Your task to perform on an android device: Toggle the flashlight Image 0: 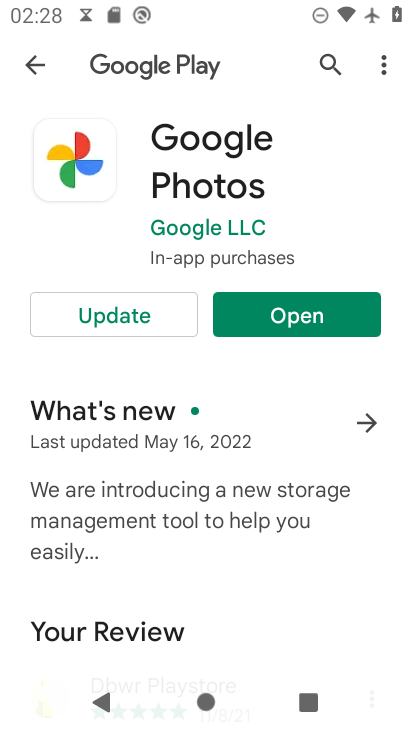
Step 0: press home button
Your task to perform on an android device: Toggle the flashlight Image 1: 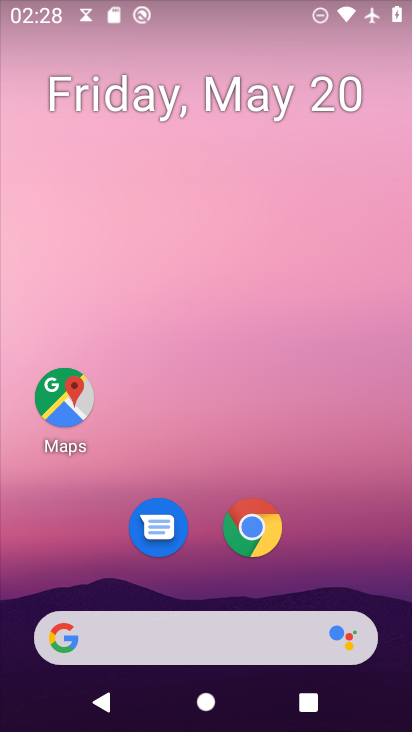
Step 1: task complete